Your task to perform on an android device: Go to CNN.com Image 0: 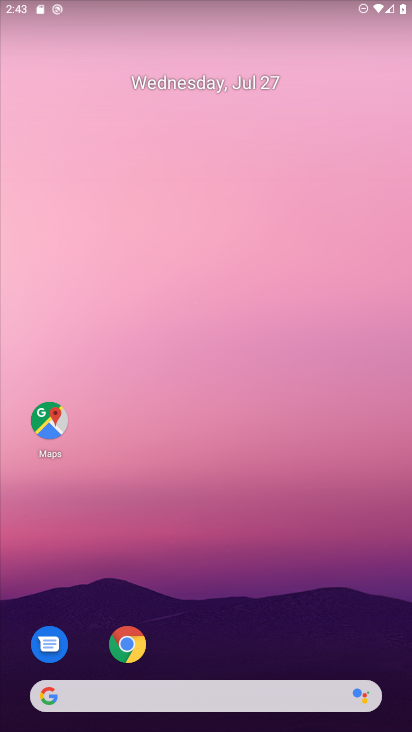
Step 0: click (131, 651)
Your task to perform on an android device: Go to CNN.com Image 1: 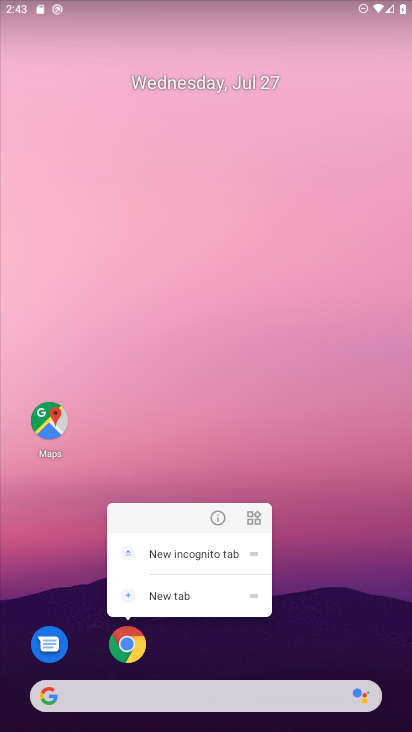
Step 1: click (143, 667)
Your task to perform on an android device: Go to CNN.com Image 2: 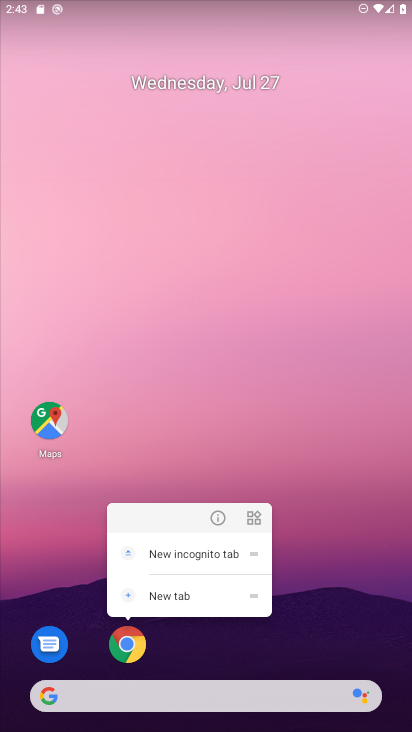
Step 2: click (129, 644)
Your task to perform on an android device: Go to CNN.com Image 3: 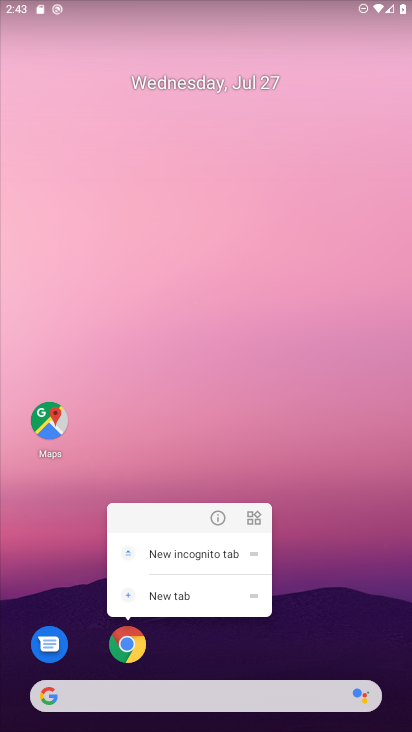
Step 3: click (134, 643)
Your task to perform on an android device: Go to CNN.com Image 4: 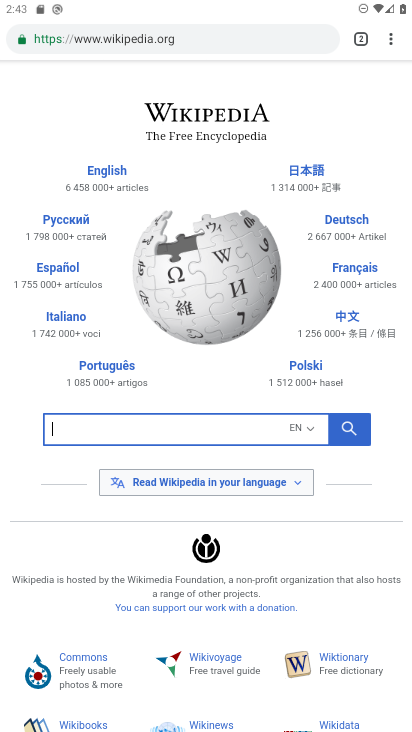
Step 4: click (144, 46)
Your task to perform on an android device: Go to CNN.com Image 5: 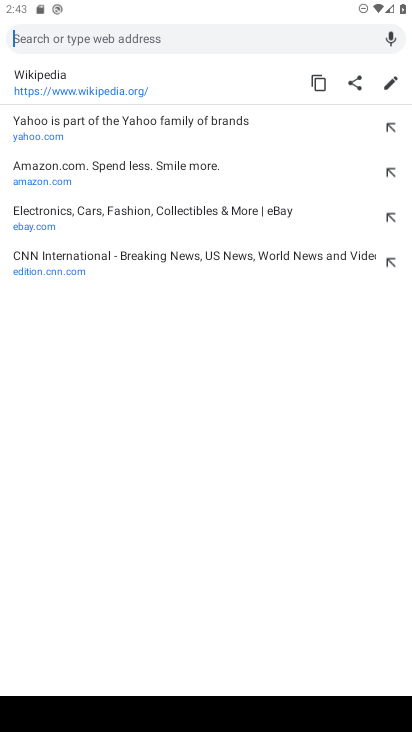
Step 5: type "CNN.com"
Your task to perform on an android device: Go to CNN.com Image 6: 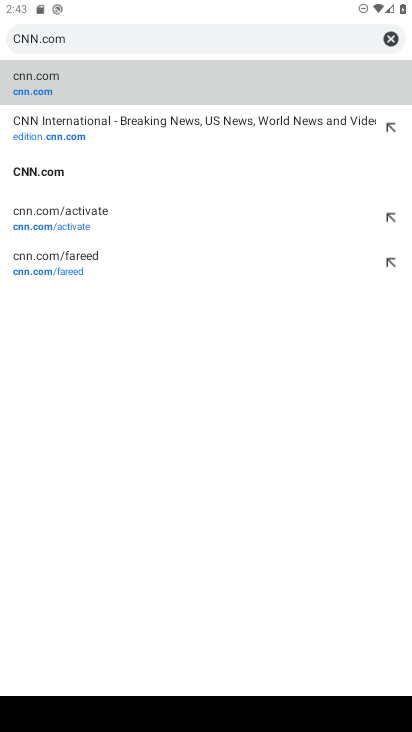
Step 6: click (102, 122)
Your task to perform on an android device: Go to CNN.com Image 7: 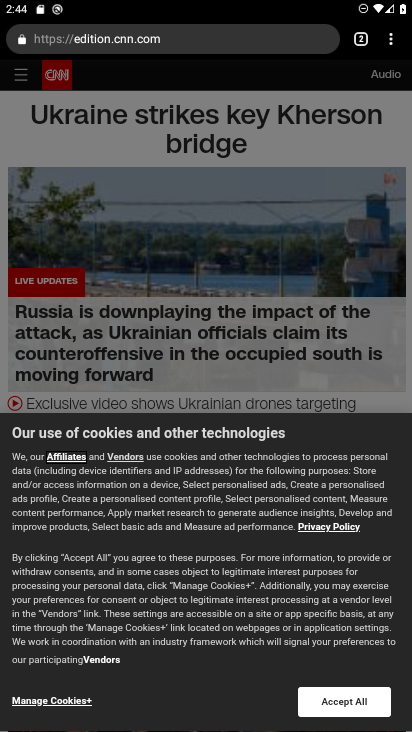
Step 7: task complete